Your task to perform on an android device: turn off airplane mode Image 0: 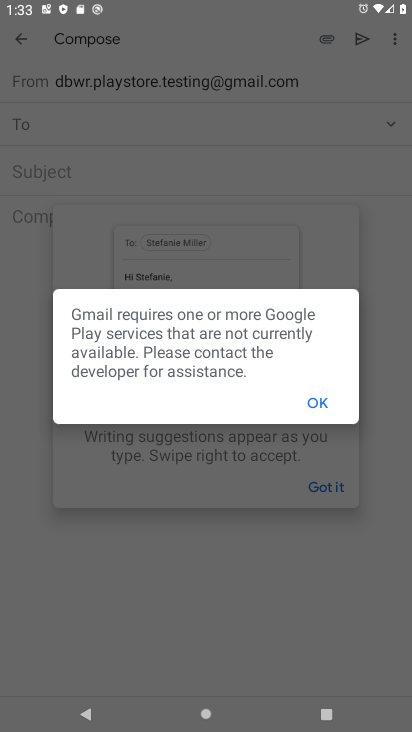
Step 0: press home button
Your task to perform on an android device: turn off airplane mode Image 1: 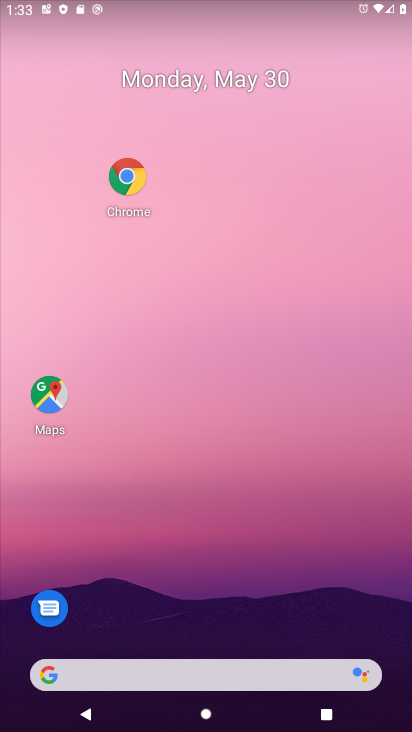
Step 1: drag from (237, 603) to (150, 3)
Your task to perform on an android device: turn off airplane mode Image 2: 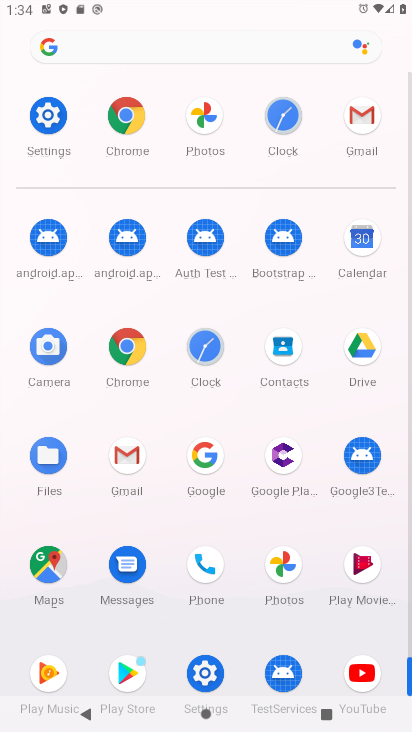
Step 2: click (48, 123)
Your task to perform on an android device: turn off airplane mode Image 3: 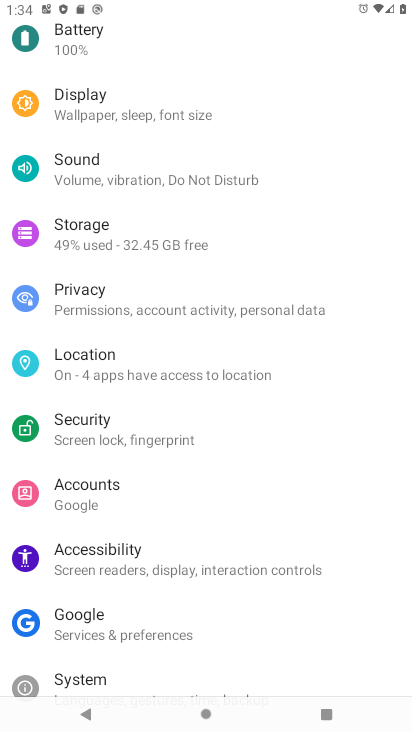
Step 3: drag from (144, 60) to (217, 392)
Your task to perform on an android device: turn off airplane mode Image 4: 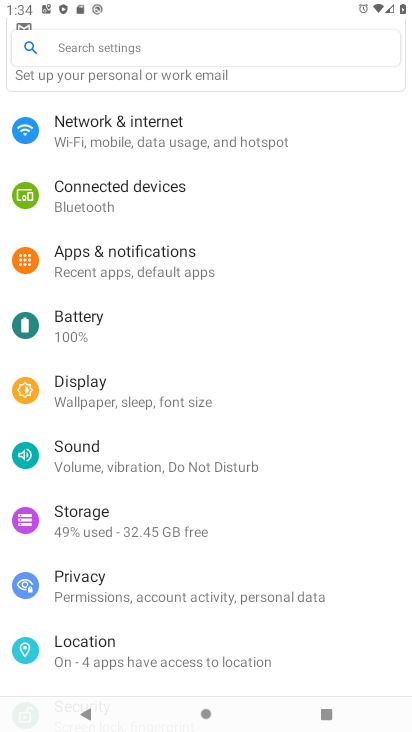
Step 4: click (105, 128)
Your task to perform on an android device: turn off airplane mode Image 5: 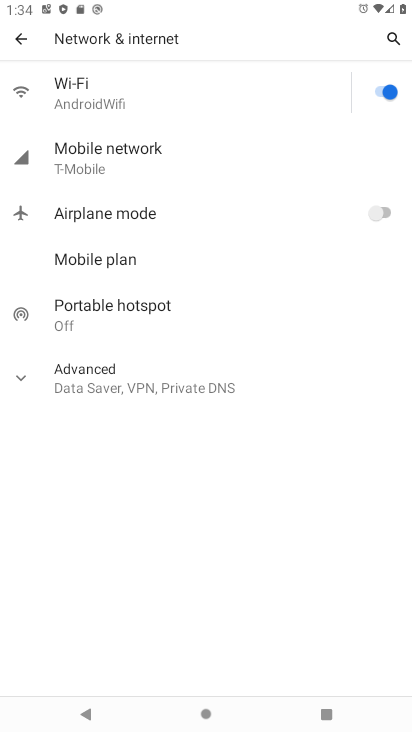
Step 5: task complete